Your task to perform on an android device: turn on notifications settings in the gmail app Image 0: 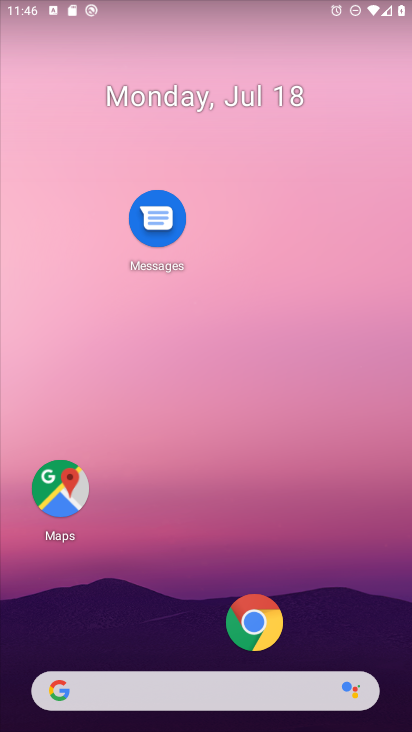
Step 0: drag from (202, 656) to (268, 155)
Your task to perform on an android device: turn on notifications settings in the gmail app Image 1: 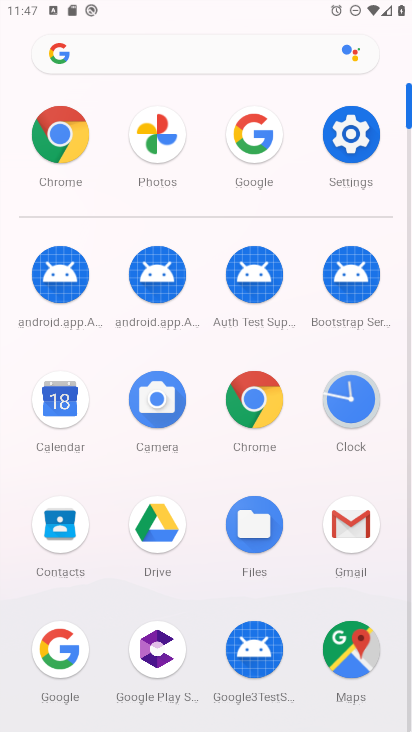
Step 1: click (363, 534)
Your task to perform on an android device: turn on notifications settings in the gmail app Image 2: 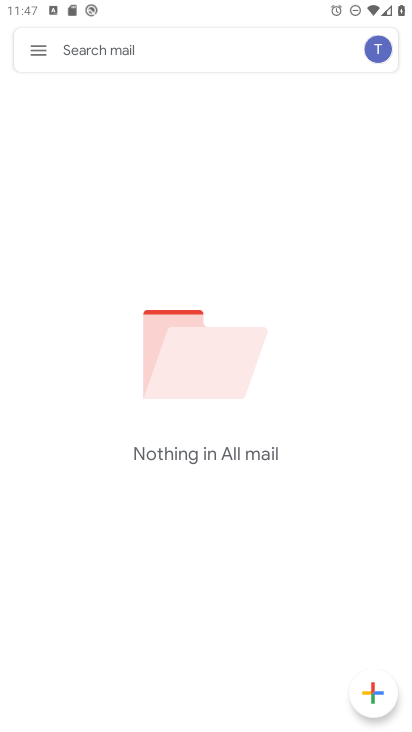
Step 2: click (31, 48)
Your task to perform on an android device: turn on notifications settings in the gmail app Image 3: 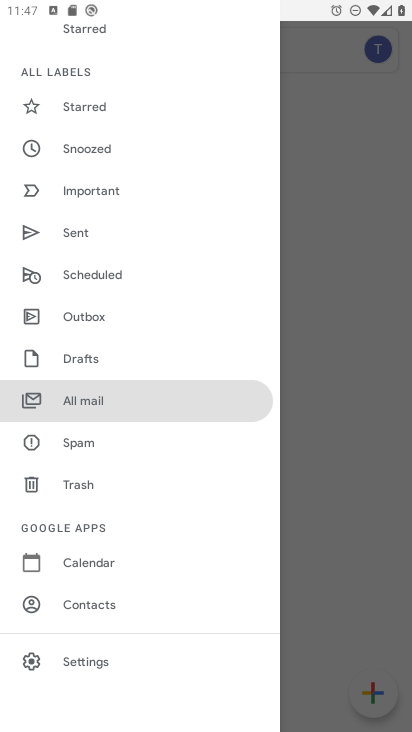
Step 3: click (65, 674)
Your task to perform on an android device: turn on notifications settings in the gmail app Image 4: 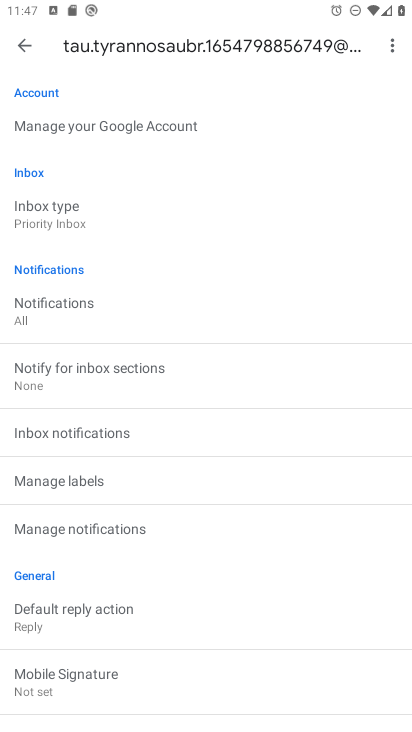
Step 4: click (78, 536)
Your task to perform on an android device: turn on notifications settings in the gmail app Image 5: 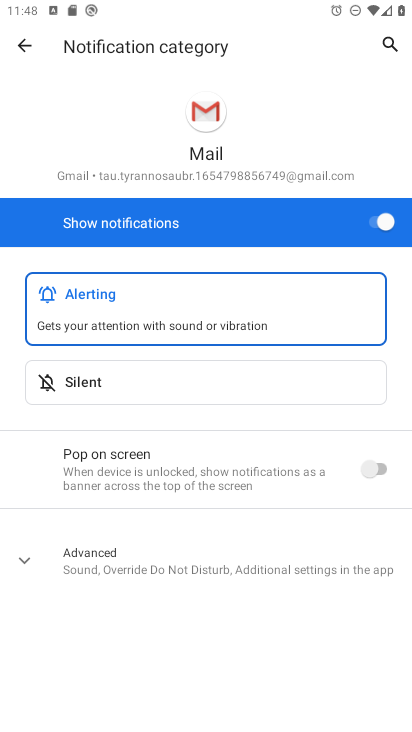
Step 5: task complete